Your task to perform on an android device: turn on bluetooth scan Image 0: 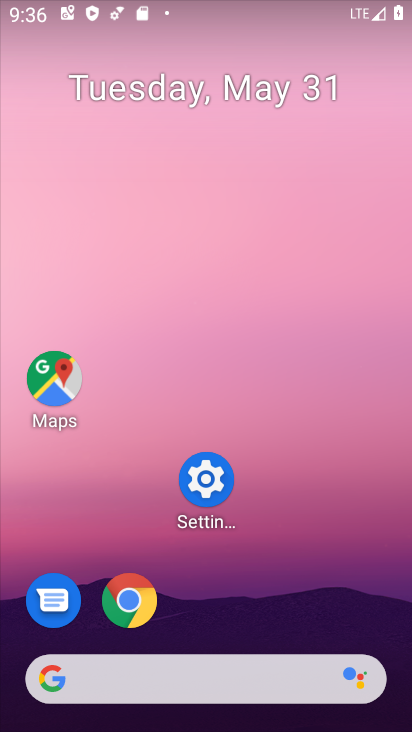
Step 0: press home button
Your task to perform on an android device: turn on bluetooth scan Image 1: 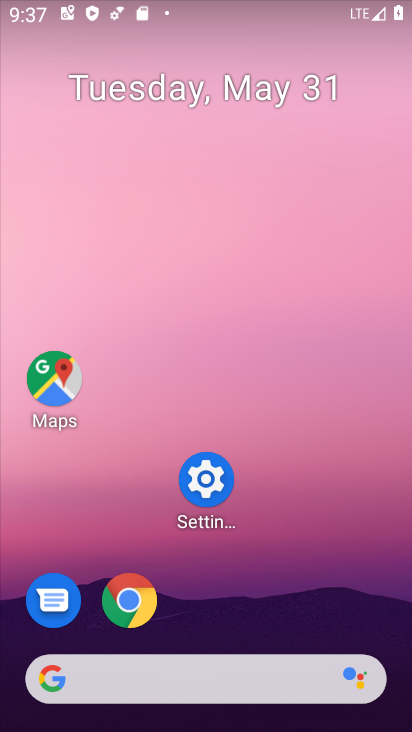
Step 1: click (222, 490)
Your task to perform on an android device: turn on bluetooth scan Image 2: 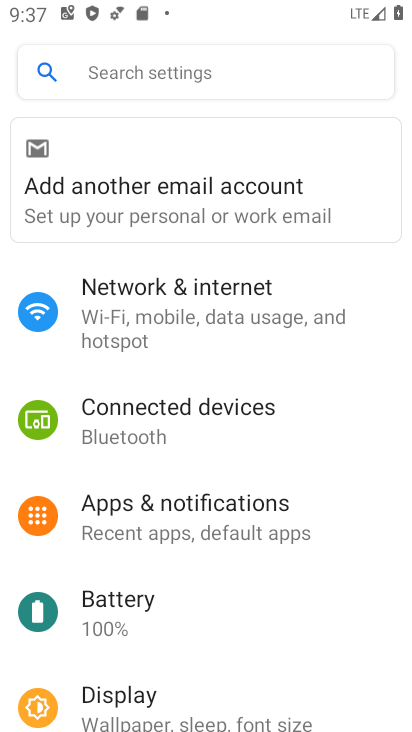
Step 2: click (154, 83)
Your task to perform on an android device: turn on bluetooth scan Image 3: 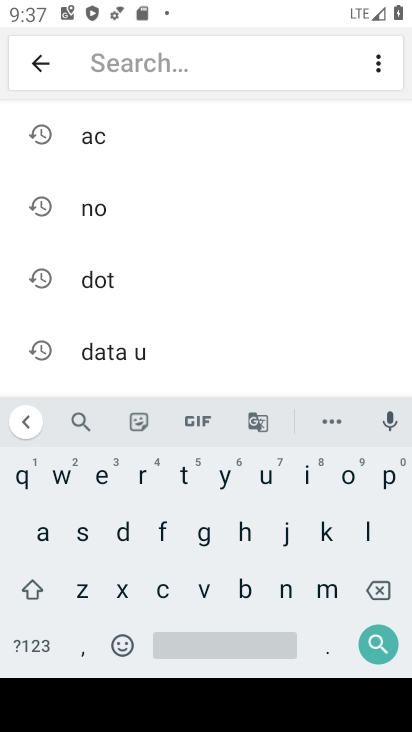
Step 3: click (372, 531)
Your task to perform on an android device: turn on bluetooth scan Image 4: 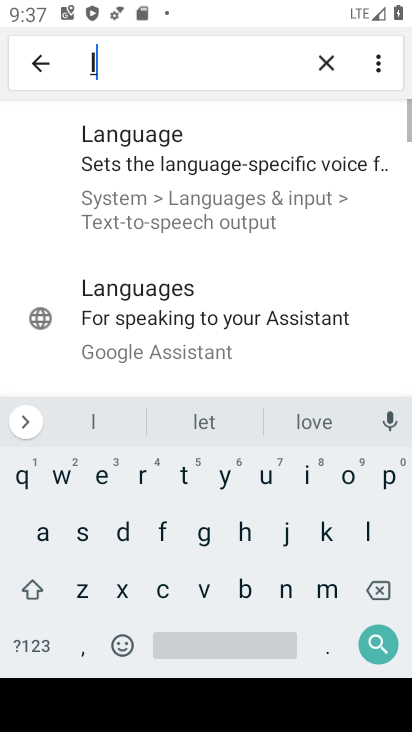
Step 4: click (349, 474)
Your task to perform on an android device: turn on bluetooth scan Image 5: 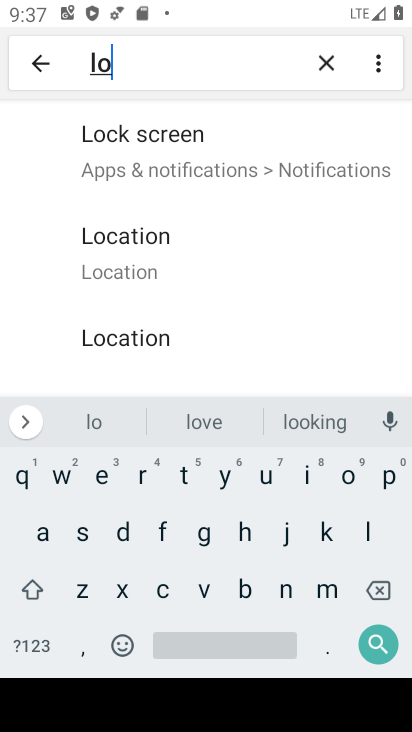
Step 5: click (160, 250)
Your task to perform on an android device: turn on bluetooth scan Image 6: 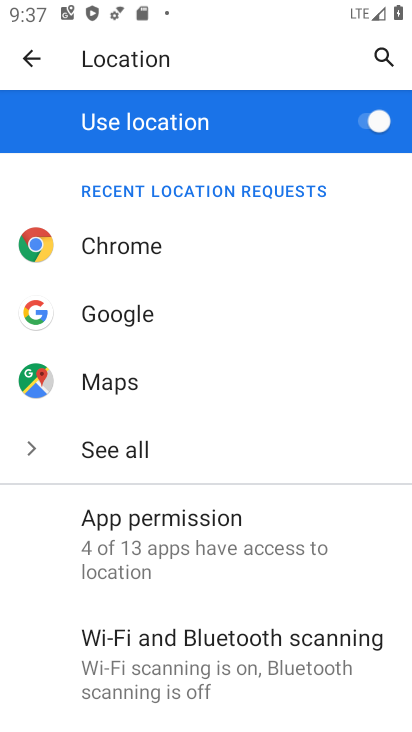
Step 6: click (150, 657)
Your task to perform on an android device: turn on bluetooth scan Image 7: 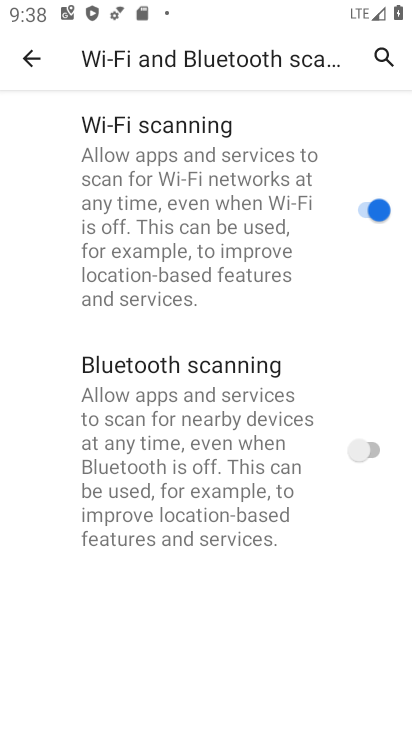
Step 7: click (360, 449)
Your task to perform on an android device: turn on bluetooth scan Image 8: 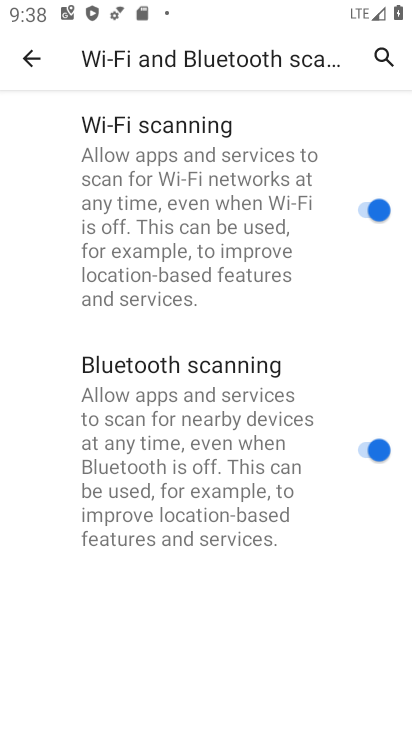
Step 8: task complete